Your task to perform on an android device: change your default location settings in chrome Image 0: 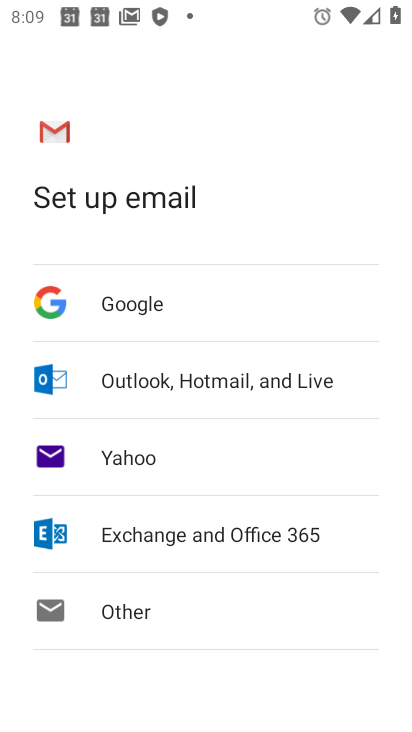
Step 0: press home button
Your task to perform on an android device: change your default location settings in chrome Image 1: 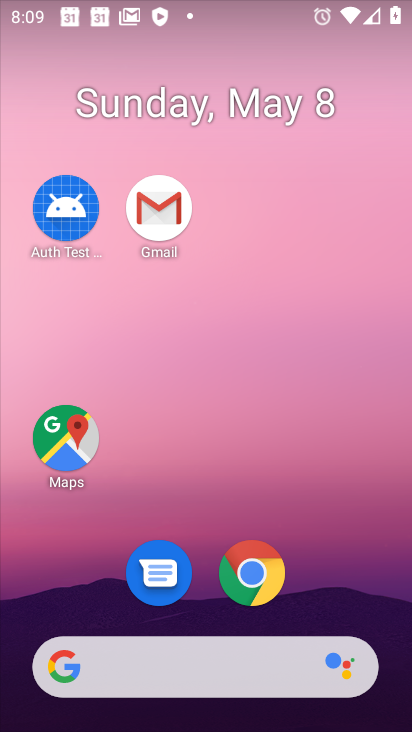
Step 1: click (234, 578)
Your task to perform on an android device: change your default location settings in chrome Image 2: 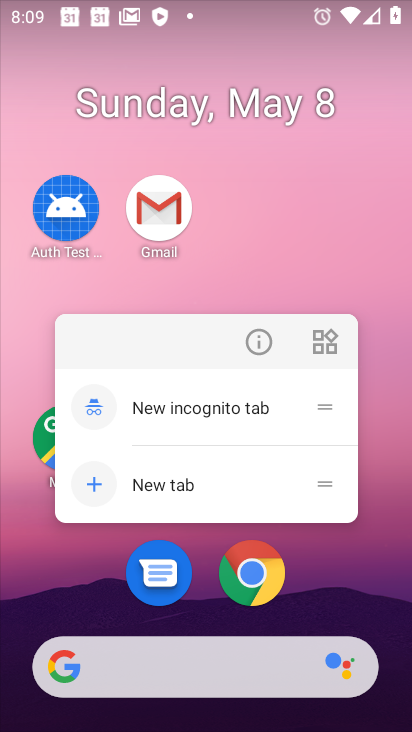
Step 2: click (242, 569)
Your task to perform on an android device: change your default location settings in chrome Image 3: 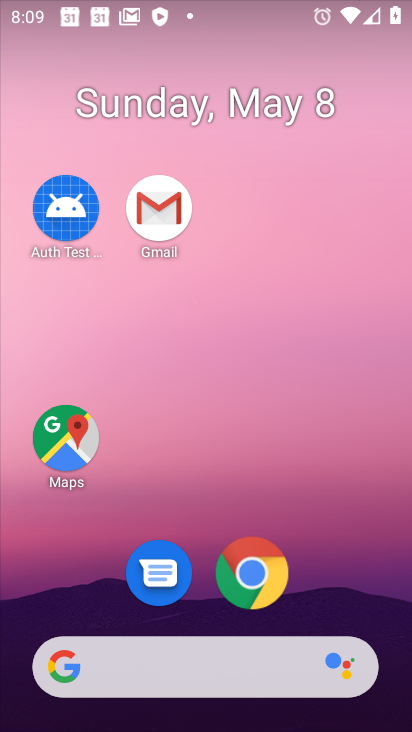
Step 3: click (242, 569)
Your task to perform on an android device: change your default location settings in chrome Image 4: 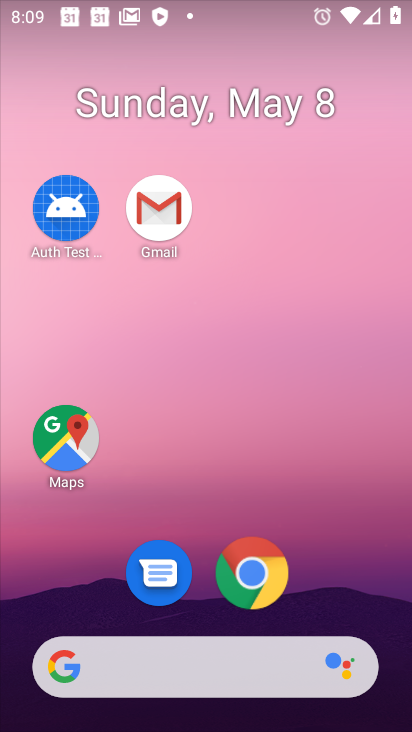
Step 4: click (244, 570)
Your task to perform on an android device: change your default location settings in chrome Image 5: 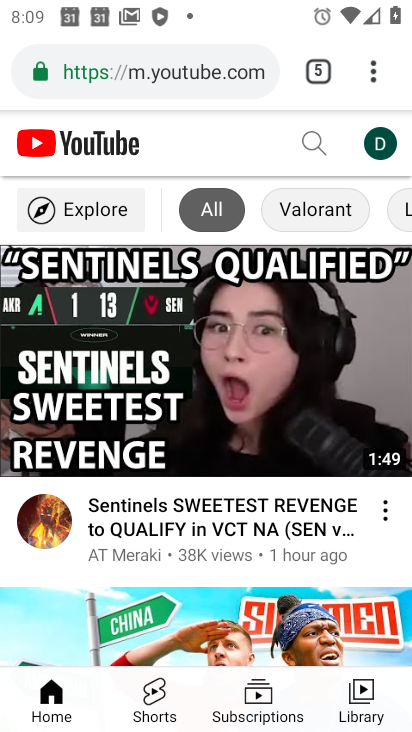
Step 5: click (255, 593)
Your task to perform on an android device: change your default location settings in chrome Image 6: 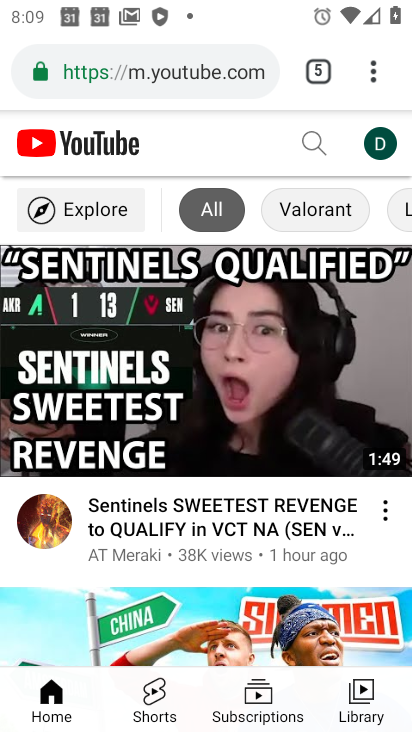
Step 6: click (246, 574)
Your task to perform on an android device: change your default location settings in chrome Image 7: 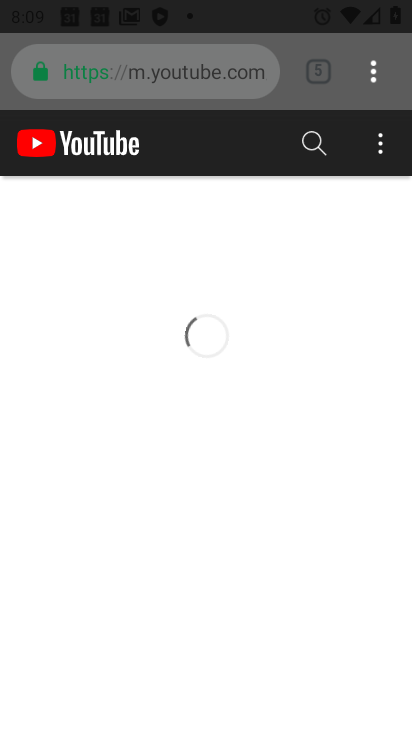
Step 7: click (371, 62)
Your task to perform on an android device: change your default location settings in chrome Image 8: 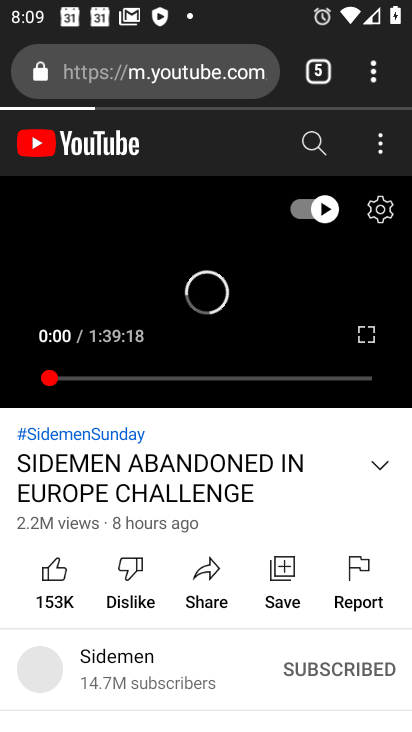
Step 8: drag from (371, 62) to (120, 587)
Your task to perform on an android device: change your default location settings in chrome Image 9: 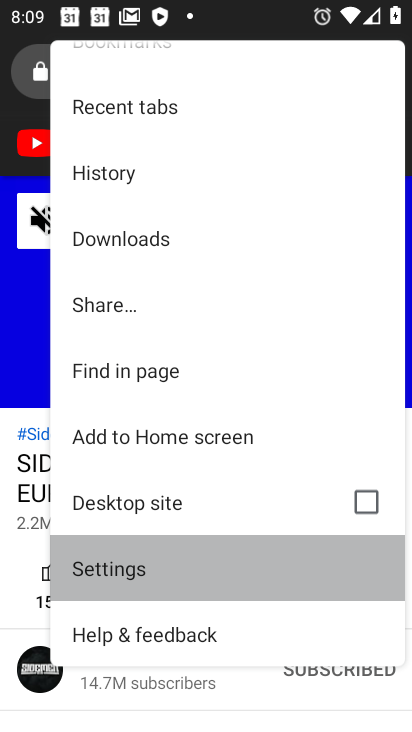
Step 9: click (120, 587)
Your task to perform on an android device: change your default location settings in chrome Image 10: 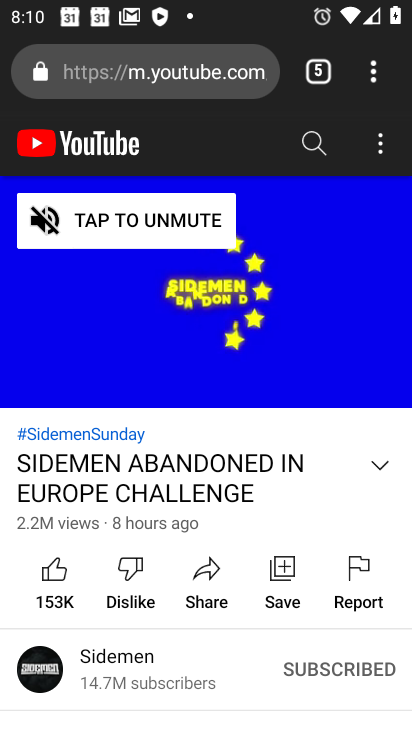
Step 10: click (123, 586)
Your task to perform on an android device: change your default location settings in chrome Image 11: 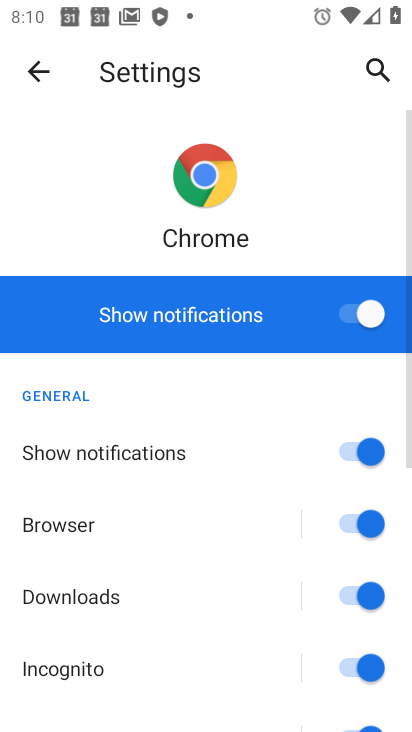
Step 11: click (33, 76)
Your task to perform on an android device: change your default location settings in chrome Image 12: 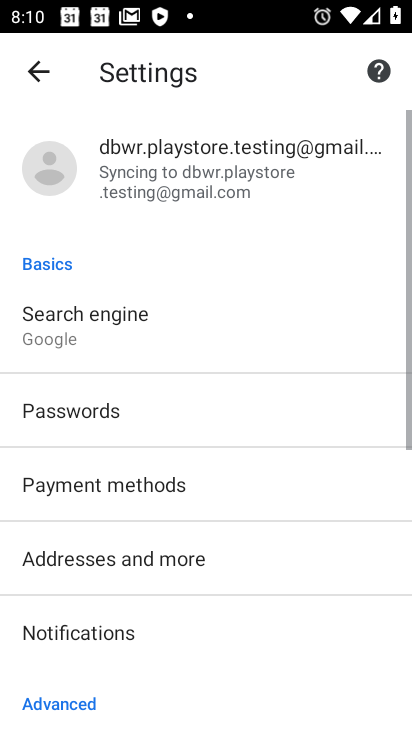
Step 12: drag from (153, 630) to (59, 245)
Your task to perform on an android device: change your default location settings in chrome Image 13: 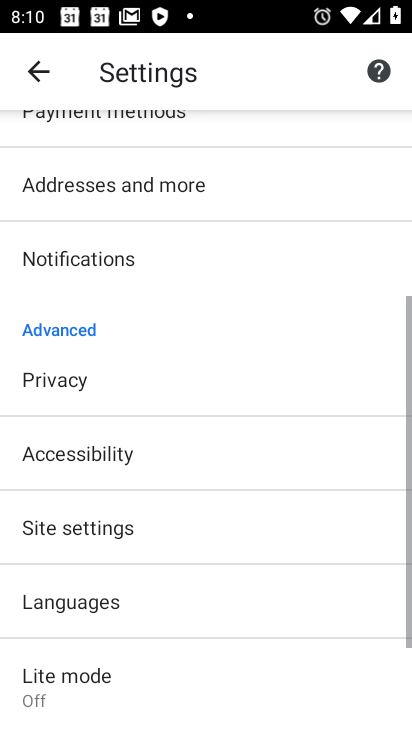
Step 13: drag from (88, 572) to (113, 115)
Your task to perform on an android device: change your default location settings in chrome Image 14: 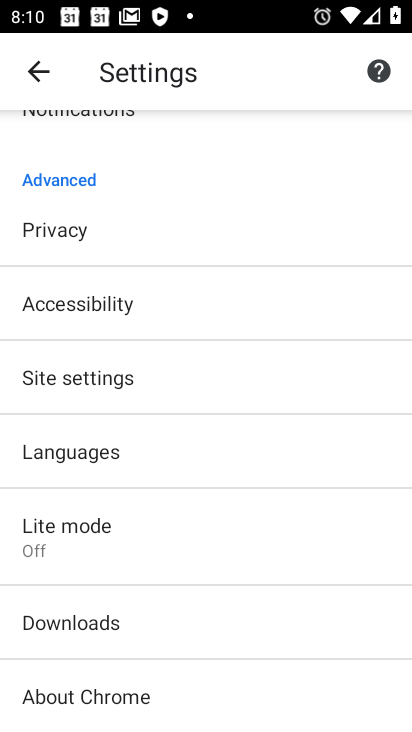
Step 14: click (61, 367)
Your task to perform on an android device: change your default location settings in chrome Image 15: 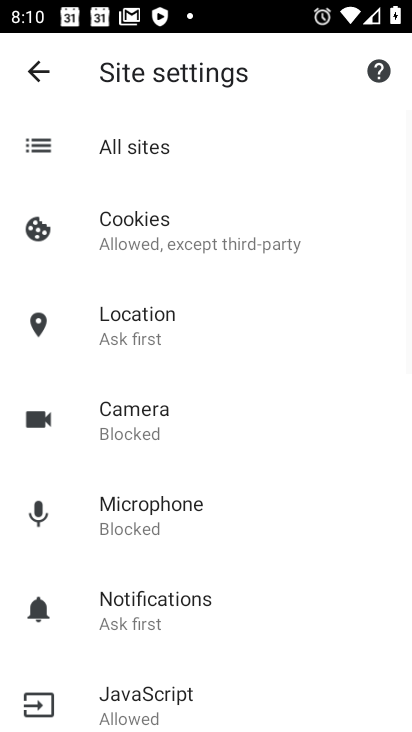
Step 15: click (127, 338)
Your task to perform on an android device: change your default location settings in chrome Image 16: 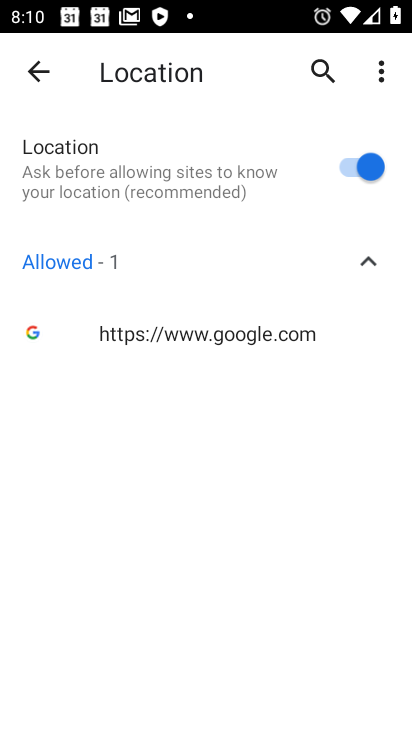
Step 16: click (368, 172)
Your task to perform on an android device: change your default location settings in chrome Image 17: 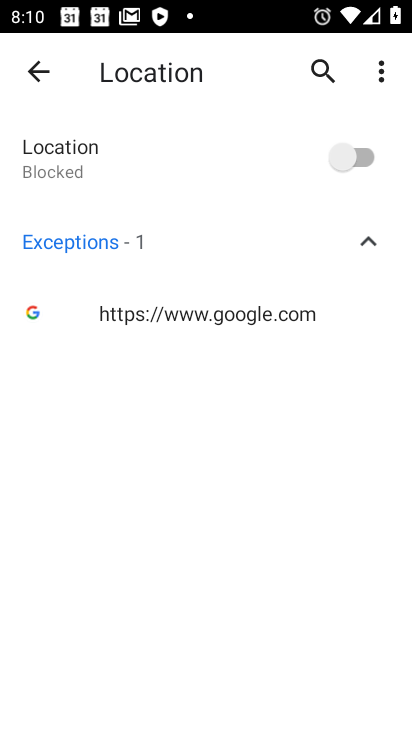
Step 17: task complete